Your task to perform on an android device: Search for Mexican restaurants on Maps Image 0: 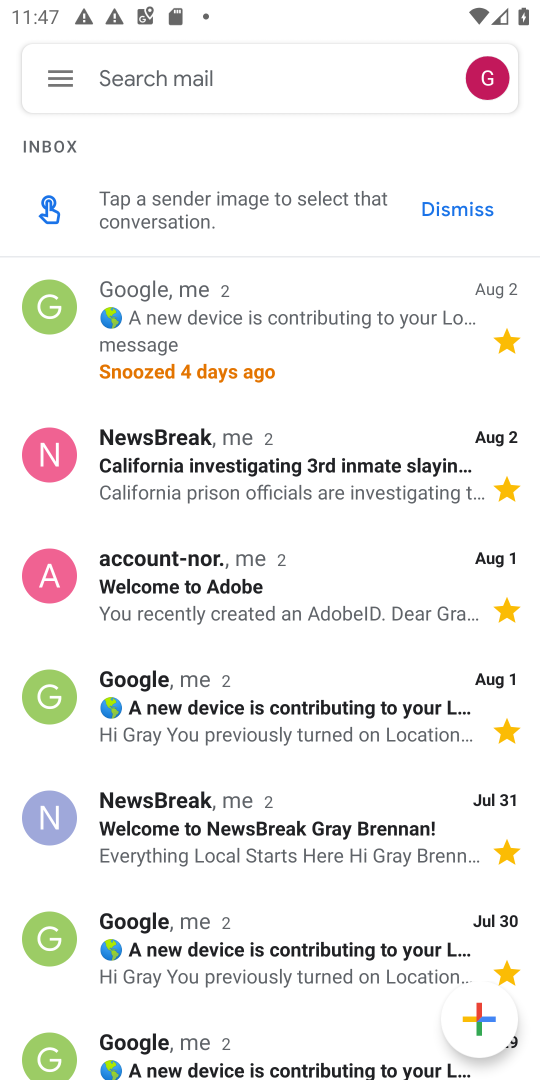
Step 0: press home button
Your task to perform on an android device: Search for Mexican restaurants on Maps Image 1: 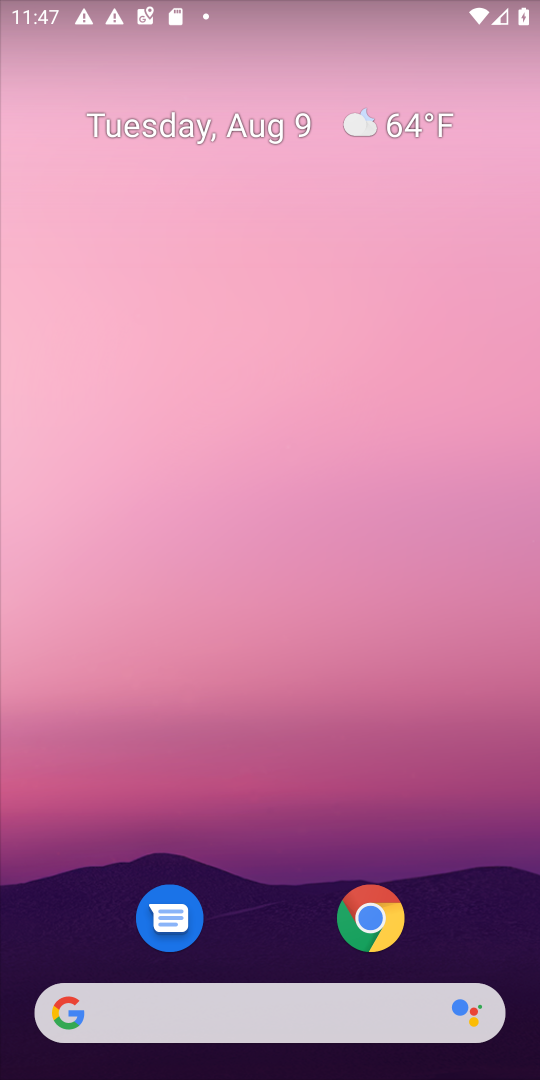
Step 1: drag from (247, 781) to (281, 54)
Your task to perform on an android device: Search for Mexican restaurants on Maps Image 2: 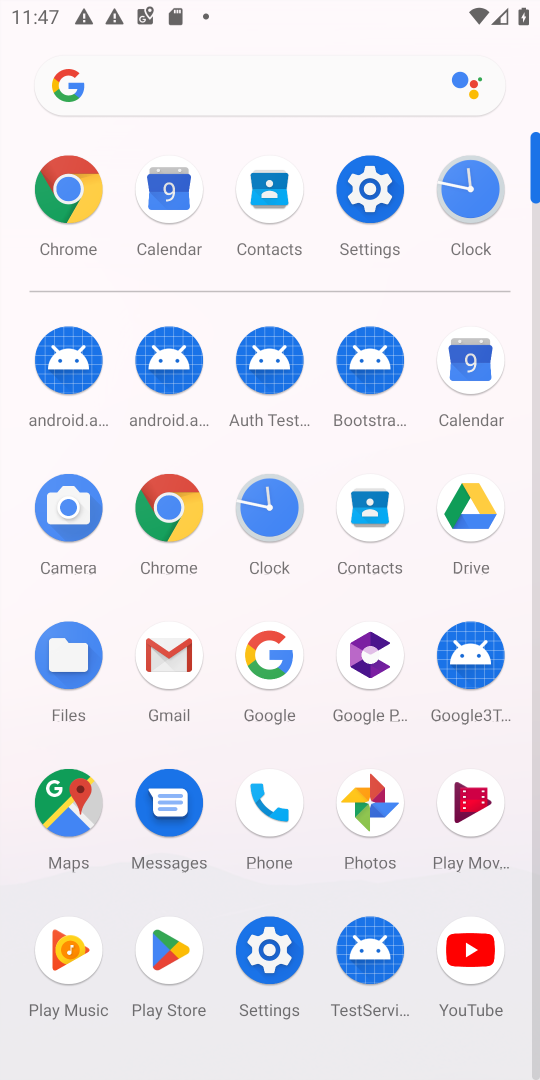
Step 2: click (76, 810)
Your task to perform on an android device: Search for Mexican restaurants on Maps Image 3: 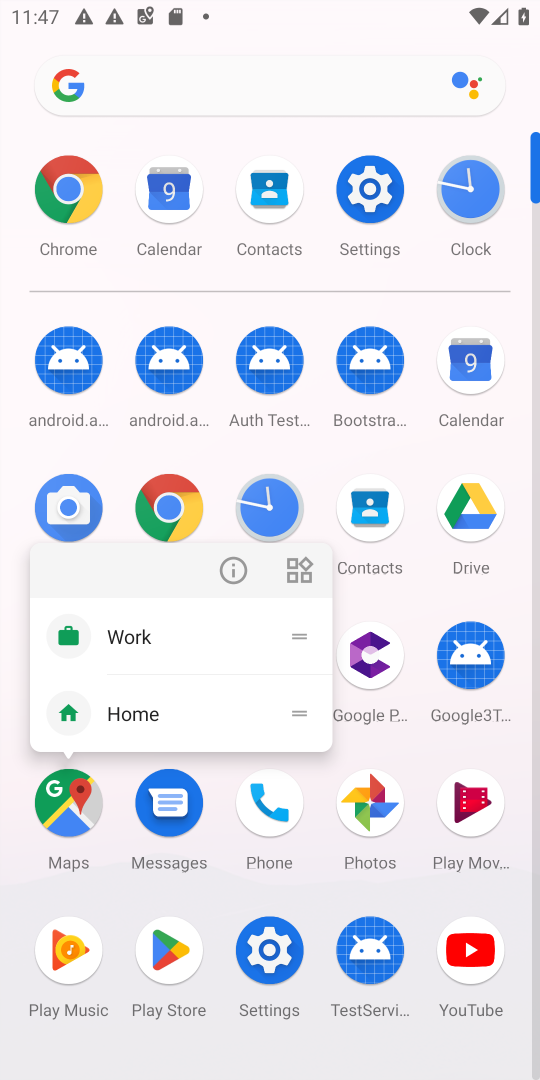
Step 3: click (76, 810)
Your task to perform on an android device: Search for Mexican restaurants on Maps Image 4: 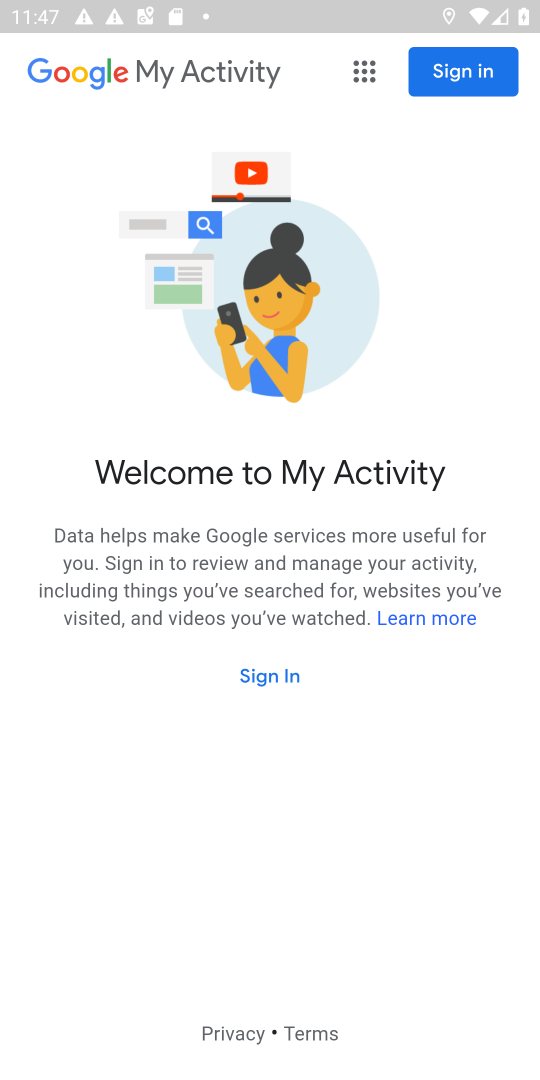
Step 4: press back button
Your task to perform on an android device: Search for Mexican restaurants on Maps Image 5: 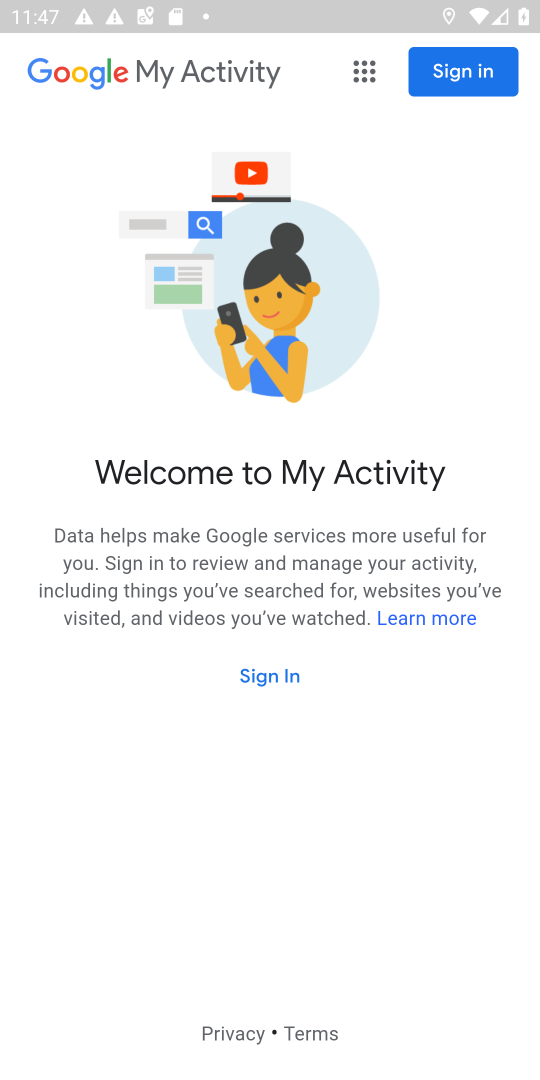
Step 5: press back button
Your task to perform on an android device: Search for Mexican restaurants on Maps Image 6: 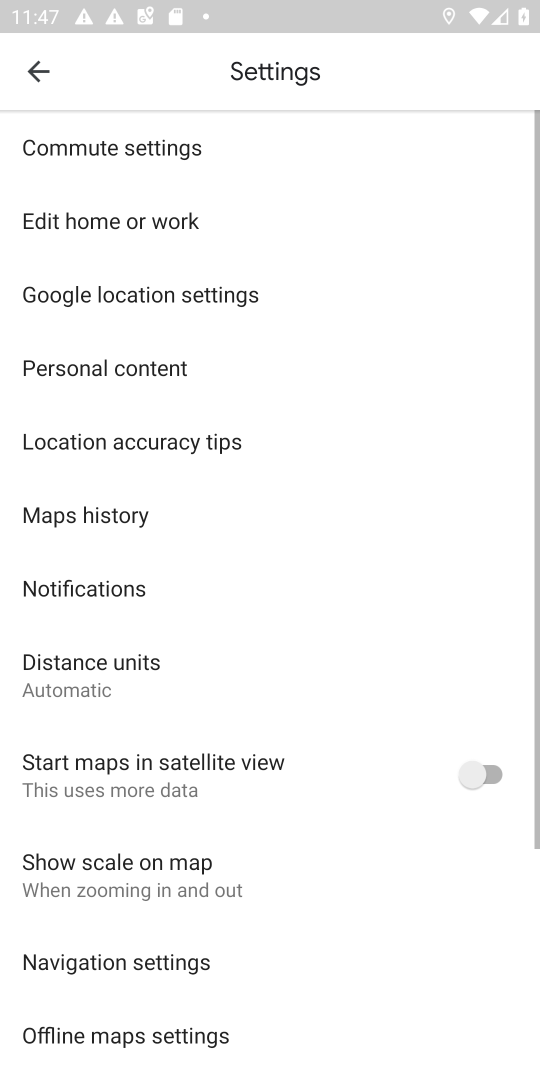
Step 6: press back button
Your task to perform on an android device: Search for Mexican restaurants on Maps Image 7: 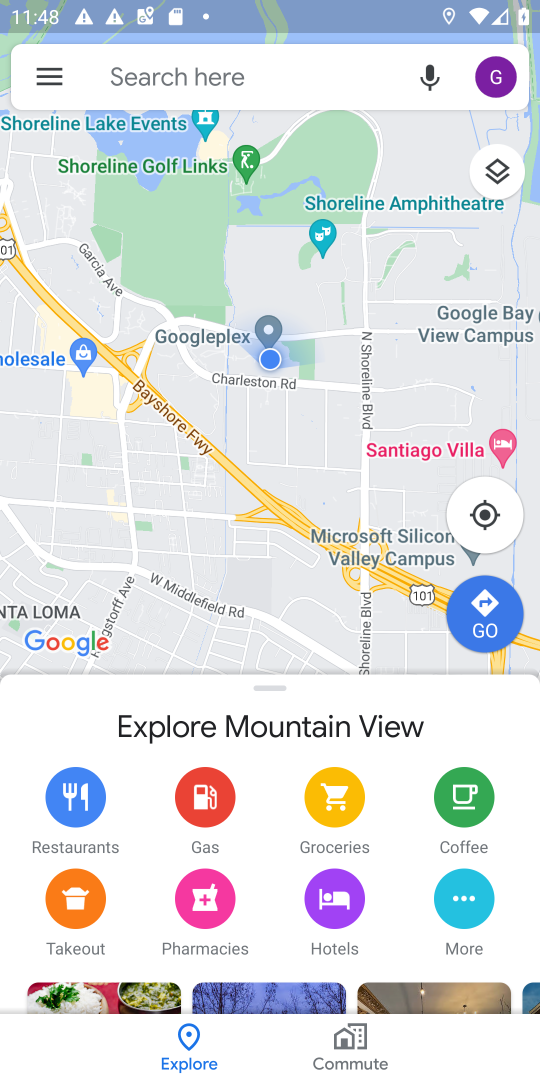
Step 7: click (213, 64)
Your task to perform on an android device: Search for Mexican restaurants on Maps Image 8: 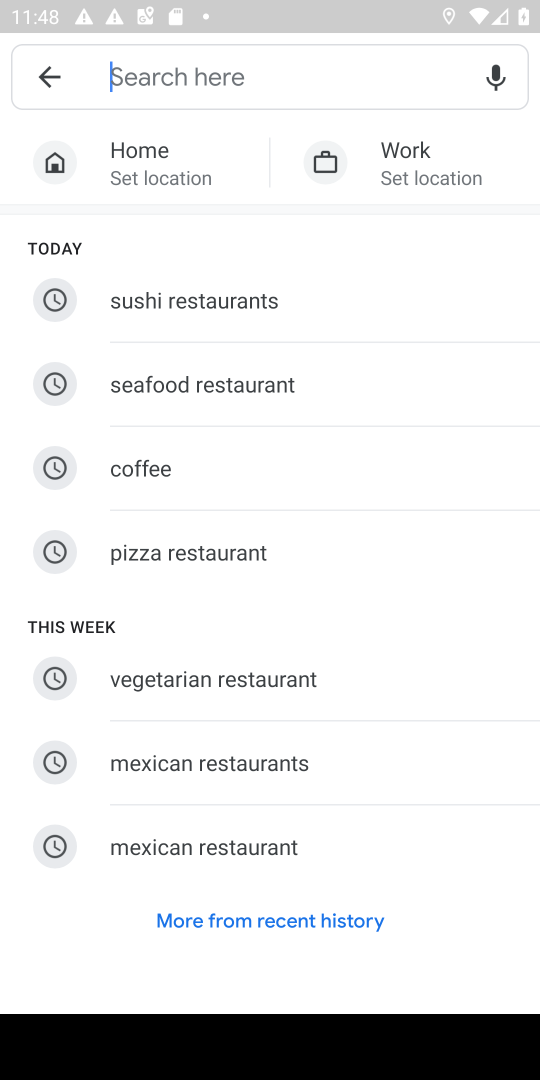
Step 8: click (244, 748)
Your task to perform on an android device: Search for Mexican restaurants on Maps Image 9: 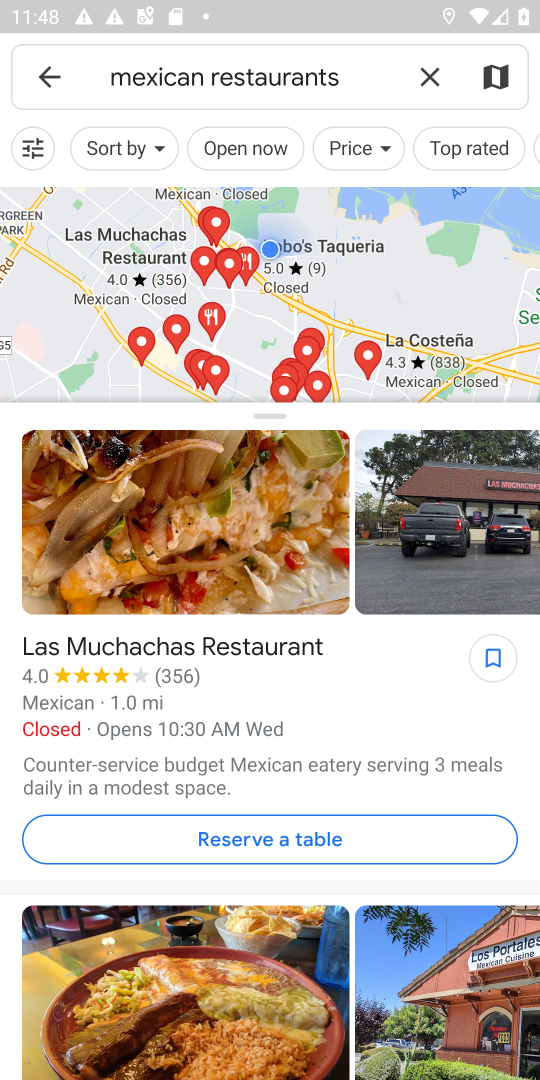
Step 9: task complete